Your task to perform on an android device: clear all cookies in the chrome app Image 0: 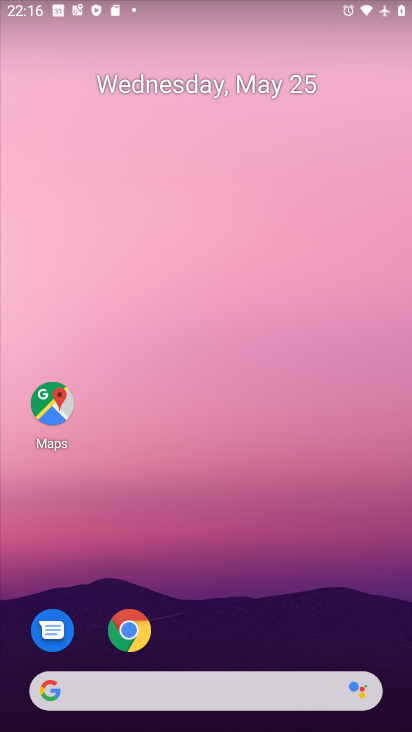
Step 0: click (119, 625)
Your task to perform on an android device: clear all cookies in the chrome app Image 1: 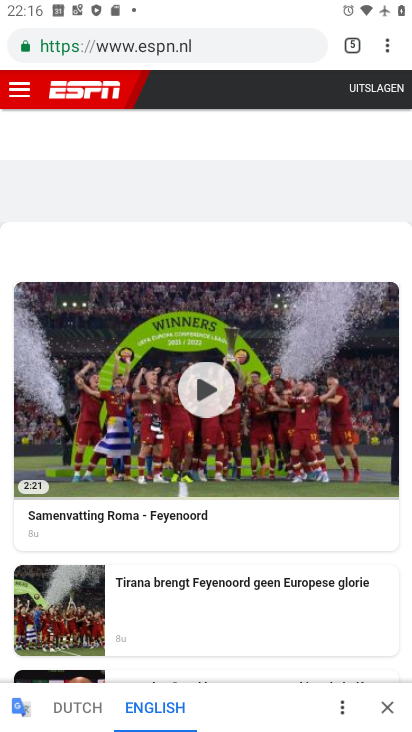
Step 1: drag from (391, 44) to (241, 256)
Your task to perform on an android device: clear all cookies in the chrome app Image 2: 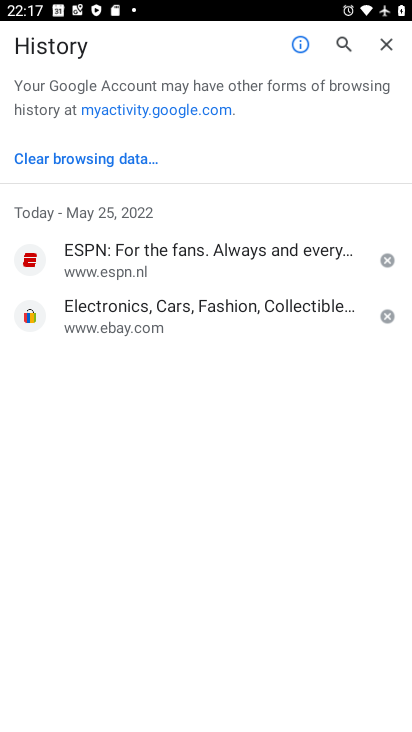
Step 2: click (84, 162)
Your task to perform on an android device: clear all cookies in the chrome app Image 3: 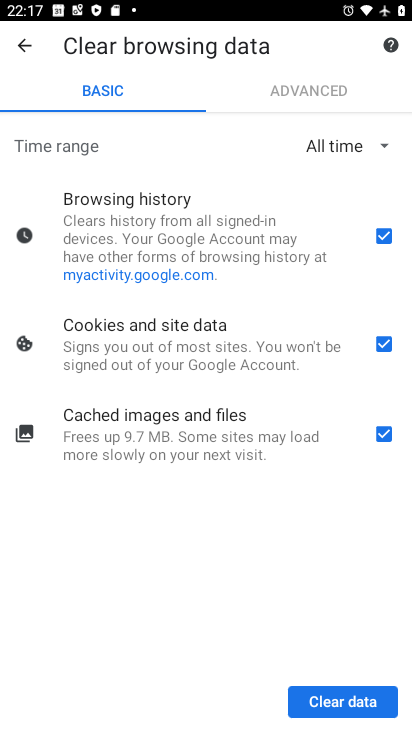
Step 3: click (362, 700)
Your task to perform on an android device: clear all cookies in the chrome app Image 4: 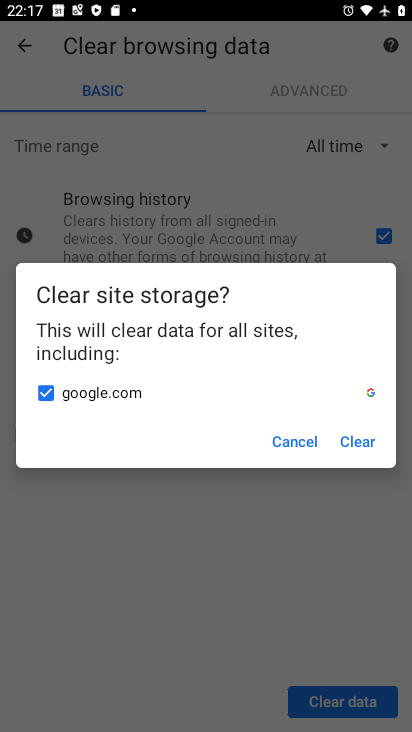
Step 4: click (347, 441)
Your task to perform on an android device: clear all cookies in the chrome app Image 5: 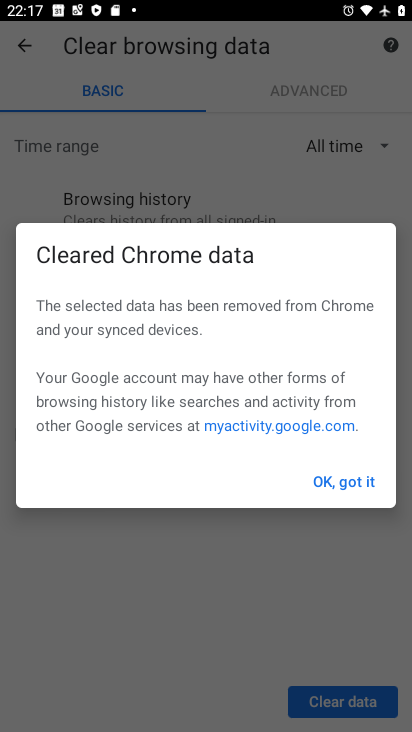
Step 5: click (340, 476)
Your task to perform on an android device: clear all cookies in the chrome app Image 6: 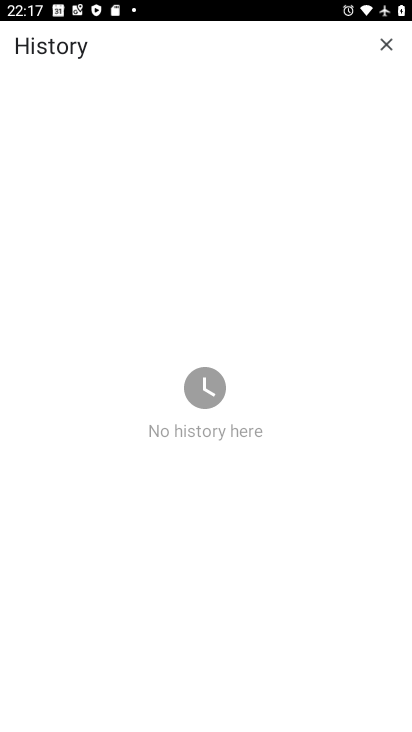
Step 6: task complete